Your task to perform on an android device: Go to CNN.com Image 0: 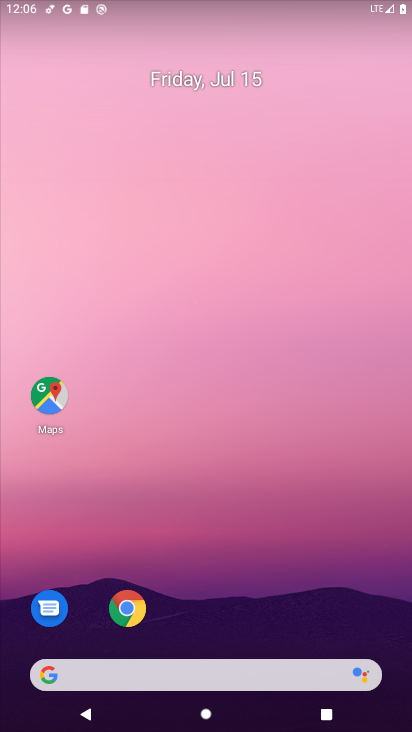
Step 0: click (126, 617)
Your task to perform on an android device: Go to CNN.com Image 1: 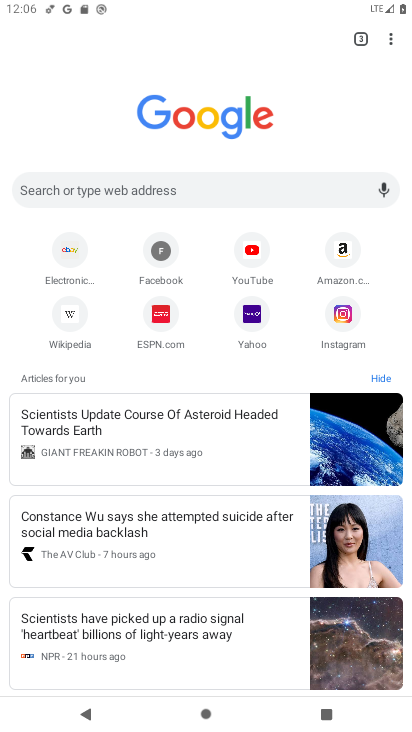
Step 1: click (252, 185)
Your task to perform on an android device: Go to CNN.com Image 2: 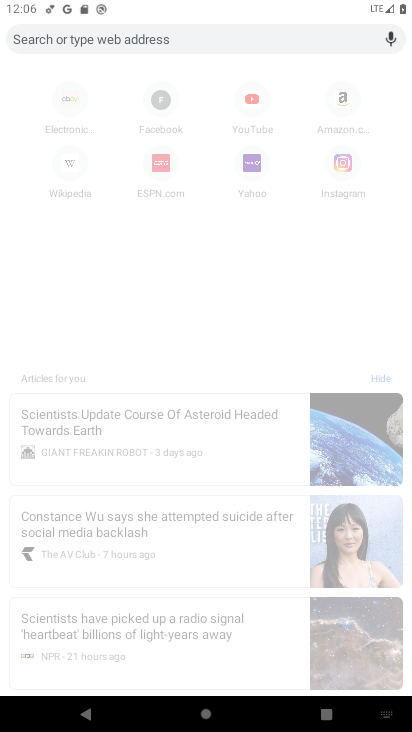
Step 2: type "cnn.com"
Your task to perform on an android device: Go to CNN.com Image 3: 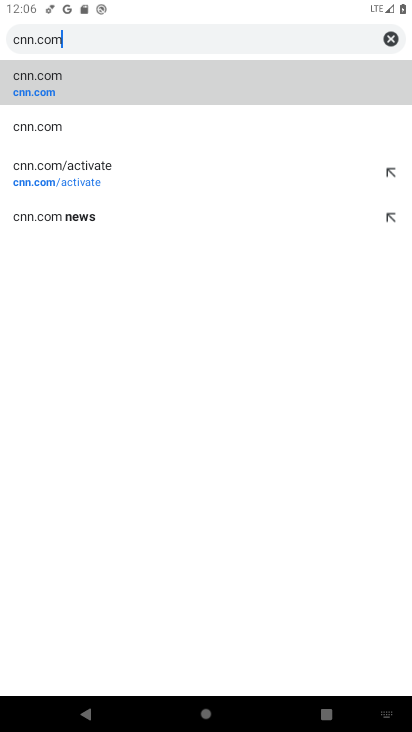
Step 3: click (34, 76)
Your task to perform on an android device: Go to CNN.com Image 4: 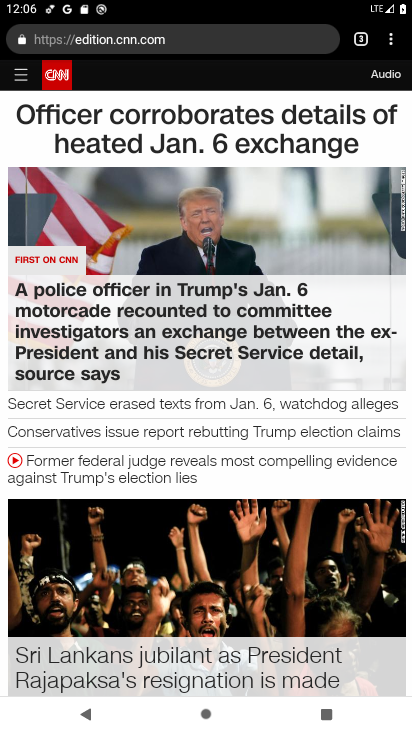
Step 4: task complete